Your task to perform on an android device: Open Yahoo.com Image 0: 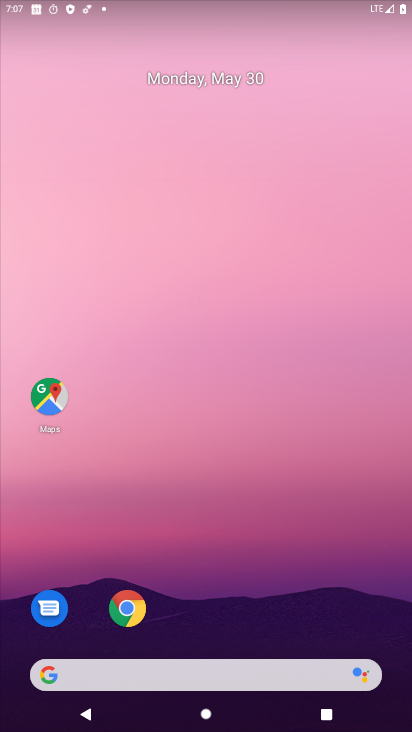
Step 0: click (125, 615)
Your task to perform on an android device: Open Yahoo.com Image 1: 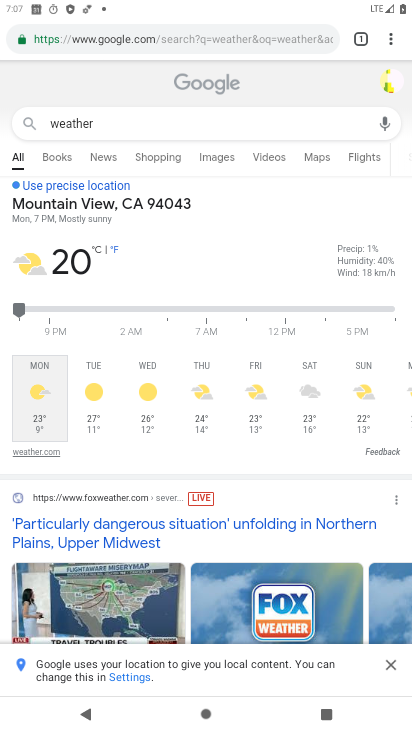
Step 1: click (170, 45)
Your task to perform on an android device: Open Yahoo.com Image 2: 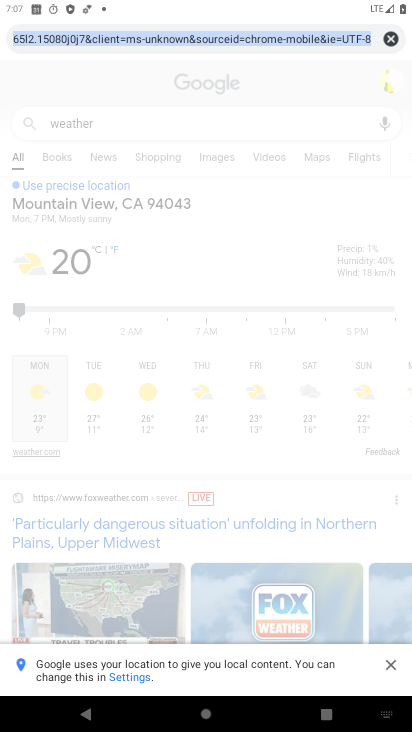
Step 2: type "yahoo.com"
Your task to perform on an android device: Open Yahoo.com Image 3: 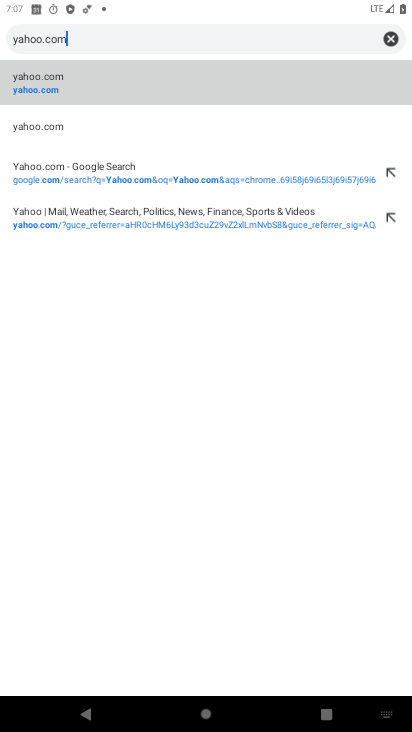
Step 3: click (117, 72)
Your task to perform on an android device: Open Yahoo.com Image 4: 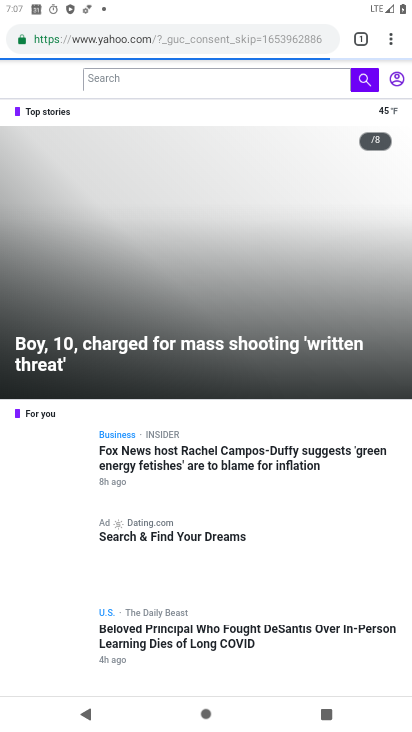
Step 4: task complete